Your task to perform on an android device: What's the weather going to be tomorrow? Image 0: 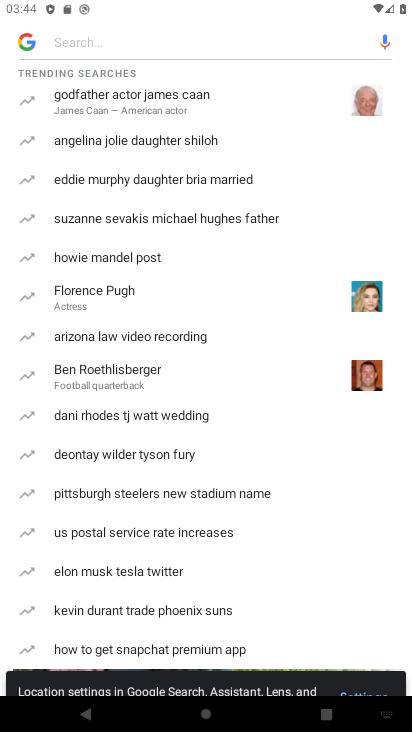
Step 0: press home button
Your task to perform on an android device: What's the weather going to be tomorrow? Image 1: 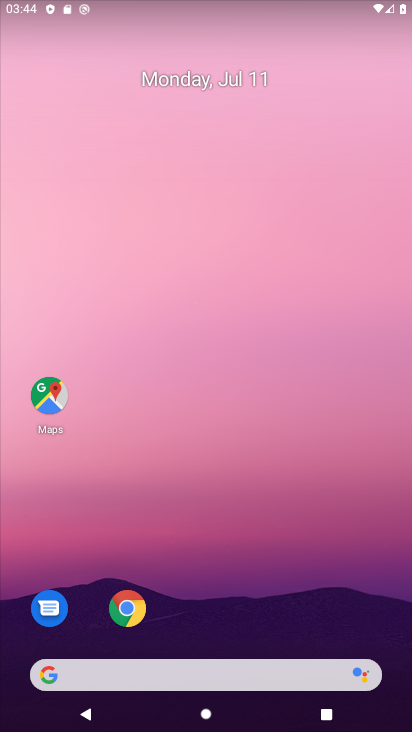
Step 1: drag from (166, 714) to (370, 9)
Your task to perform on an android device: What's the weather going to be tomorrow? Image 2: 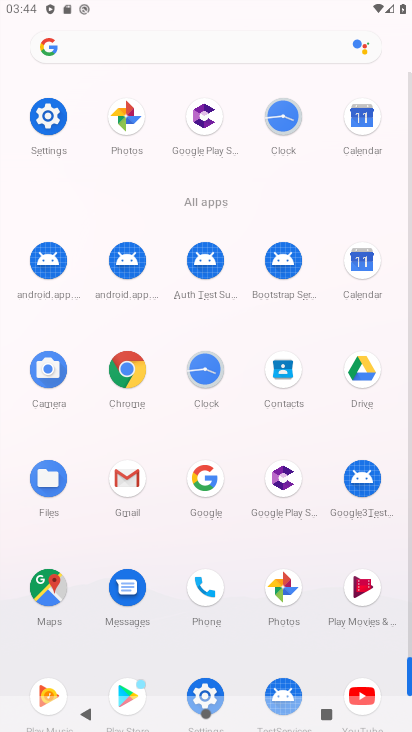
Step 2: click (214, 51)
Your task to perform on an android device: What's the weather going to be tomorrow? Image 3: 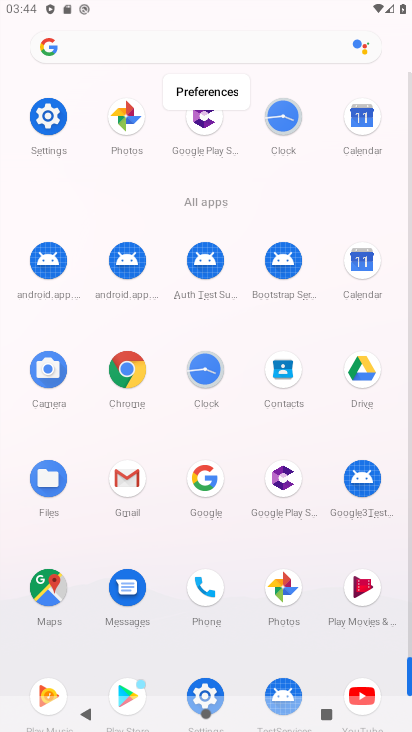
Step 3: click (200, 477)
Your task to perform on an android device: What's the weather going to be tomorrow? Image 4: 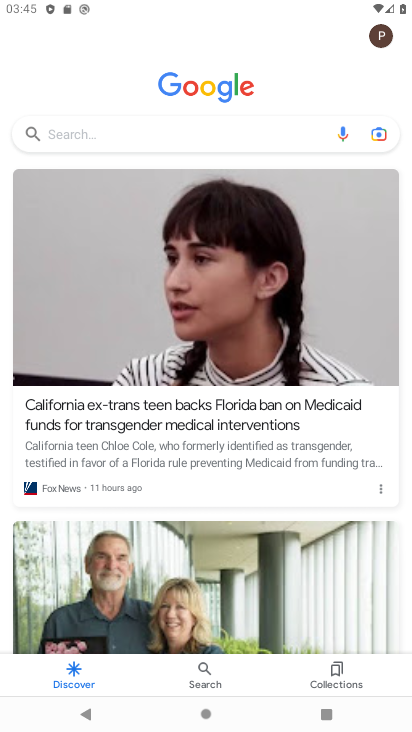
Step 4: click (268, 126)
Your task to perform on an android device: What's the weather going to be tomorrow? Image 5: 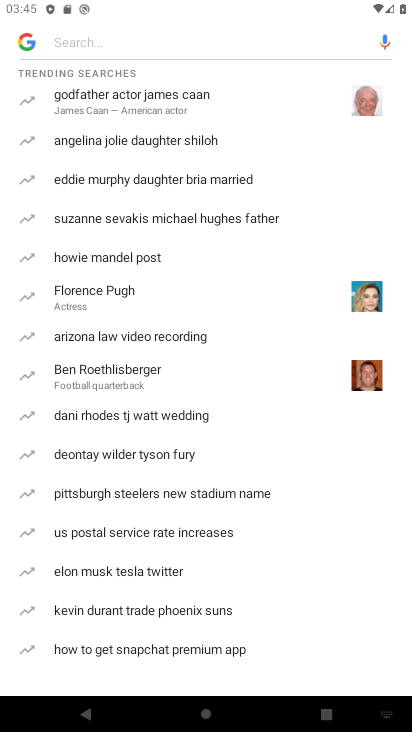
Step 5: type "What's the weather going to be tomorrow?"
Your task to perform on an android device: What's the weather going to be tomorrow? Image 6: 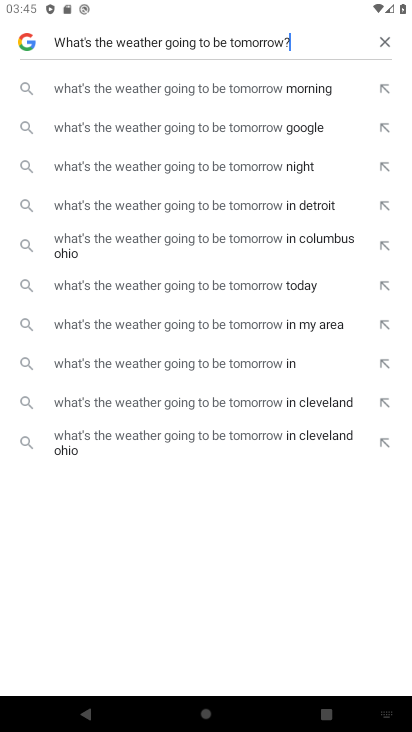
Step 6: click (322, 123)
Your task to perform on an android device: What's the weather going to be tomorrow? Image 7: 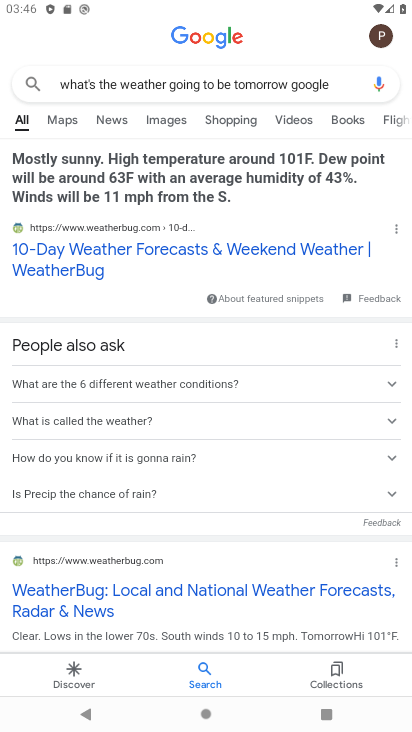
Step 7: task complete